Your task to perform on an android device: Is it going to rain tomorrow? Image 0: 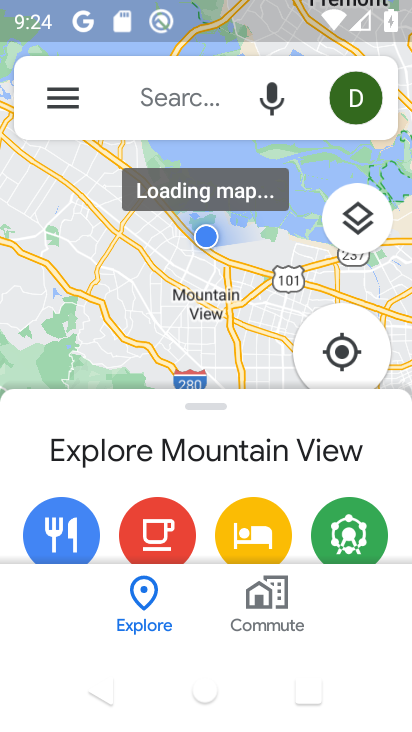
Step 0: press home button
Your task to perform on an android device: Is it going to rain tomorrow? Image 1: 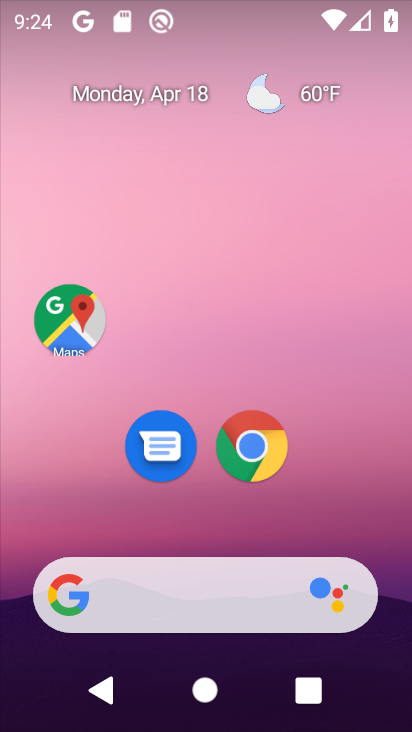
Step 1: click (210, 587)
Your task to perform on an android device: Is it going to rain tomorrow? Image 2: 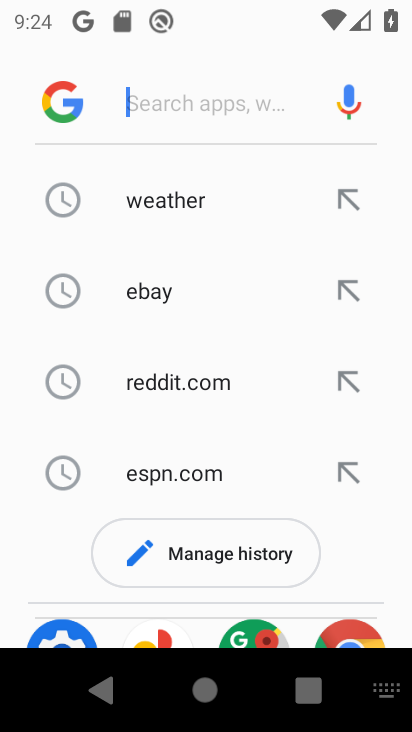
Step 2: click (175, 197)
Your task to perform on an android device: Is it going to rain tomorrow? Image 3: 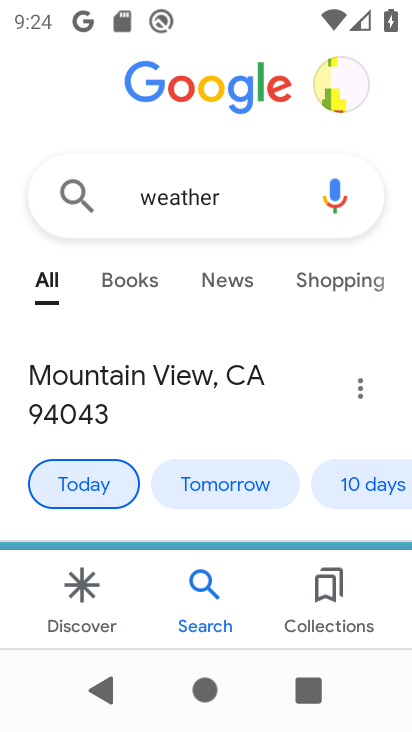
Step 3: click (237, 481)
Your task to perform on an android device: Is it going to rain tomorrow? Image 4: 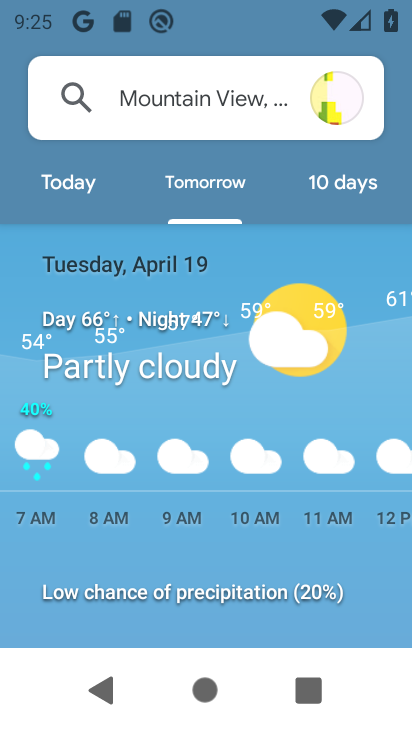
Step 4: task complete